Your task to perform on an android device: check android version Image 0: 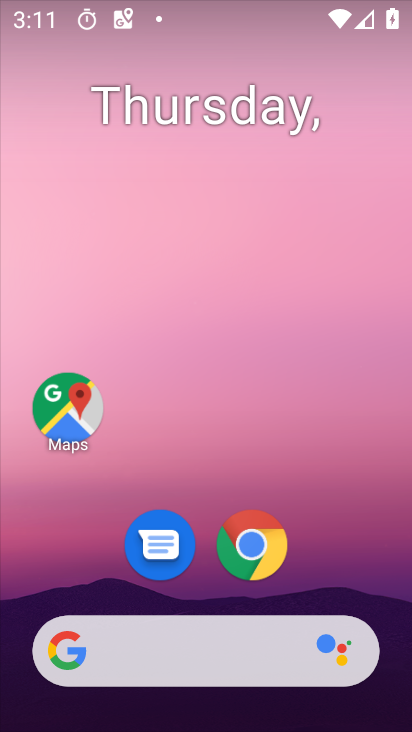
Step 0: drag from (221, 726) to (228, 144)
Your task to perform on an android device: check android version Image 1: 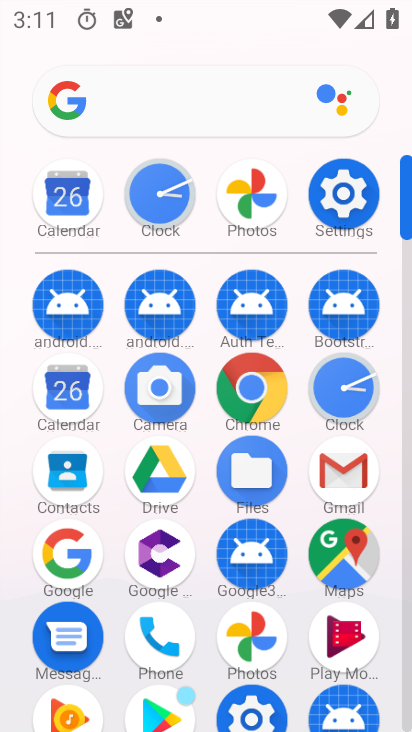
Step 1: click (341, 194)
Your task to perform on an android device: check android version Image 2: 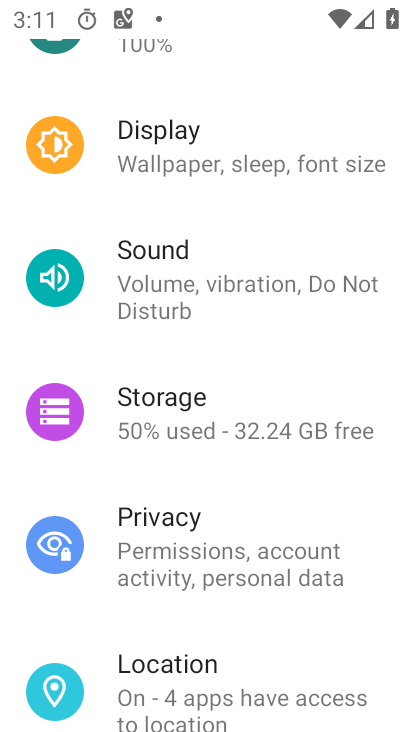
Step 2: drag from (165, 701) to (164, 262)
Your task to perform on an android device: check android version Image 3: 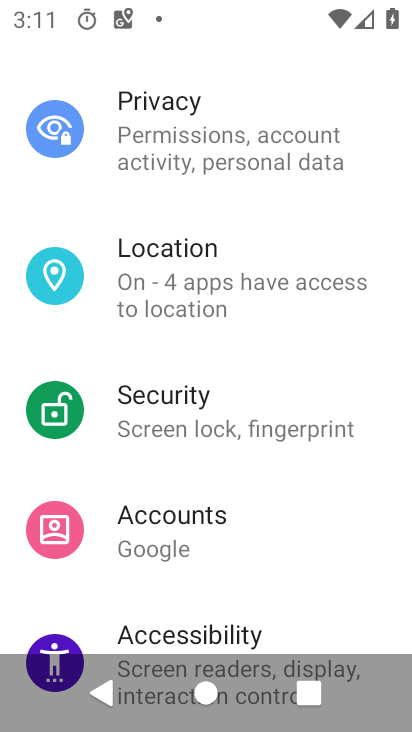
Step 3: drag from (233, 637) to (234, 163)
Your task to perform on an android device: check android version Image 4: 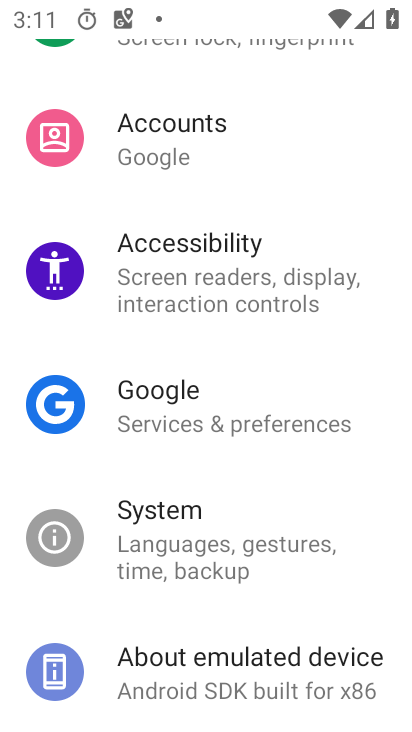
Step 4: drag from (210, 652) to (212, 275)
Your task to perform on an android device: check android version Image 5: 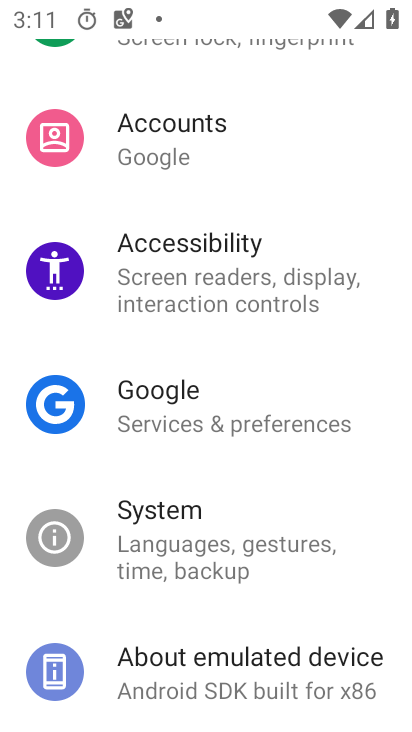
Step 5: click (197, 685)
Your task to perform on an android device: check android version Image 6: 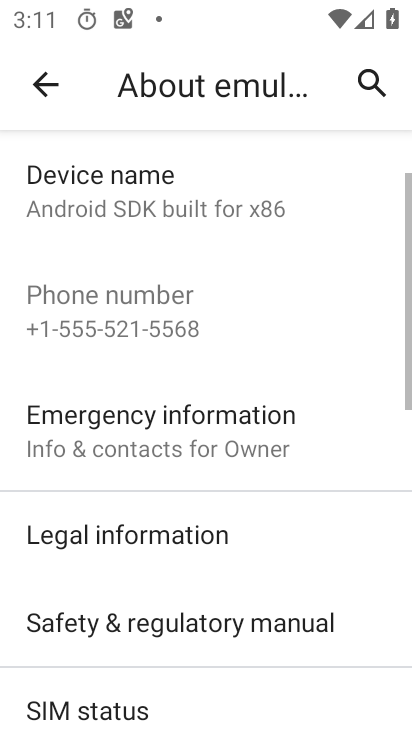
Step 6: drag from (175, 706) to (195, 105)
Your task to perform on an android device: check android version Image 7: 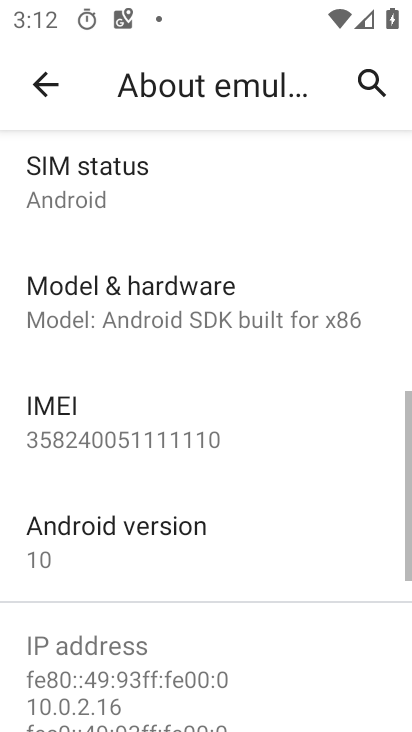
Step 7: click (88, 526)
Your task to perform on an android device: check android version Image 8: 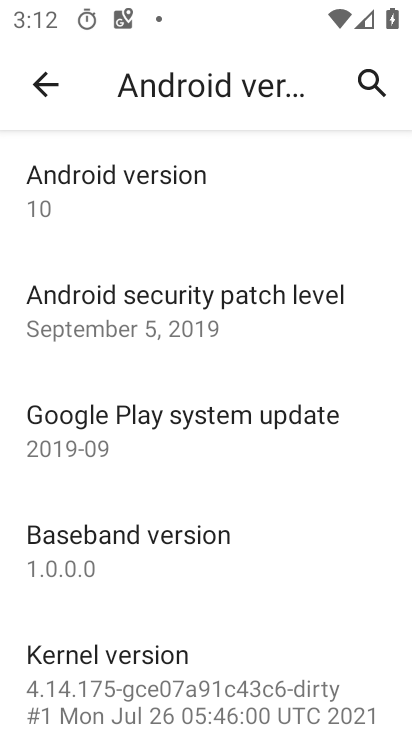
Step 8: task complete